Your task to perform on an android device: open device folders in google photos Image 0: 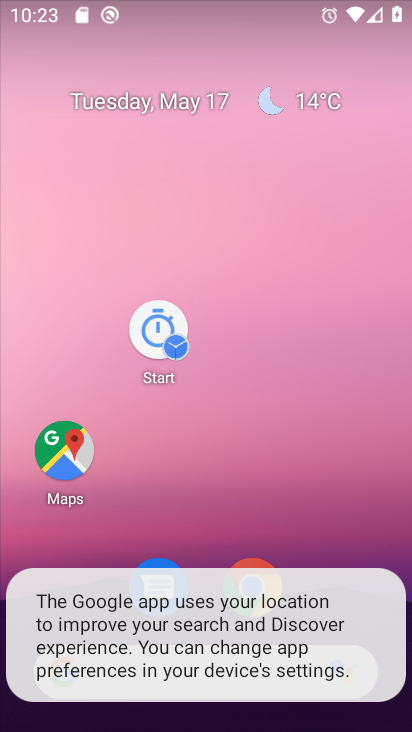
Step 0: drag from (318, 696) to (256, 249)
Your task to perform on an android device: open device folders in google photos Image 1: 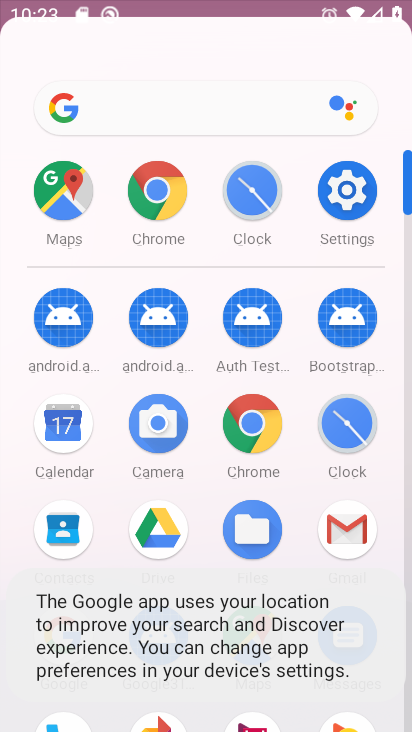
Step 1: drag from (191, 75) to (168, 3)
Your task to perform on an android device: open device folders in google photos Image 2: 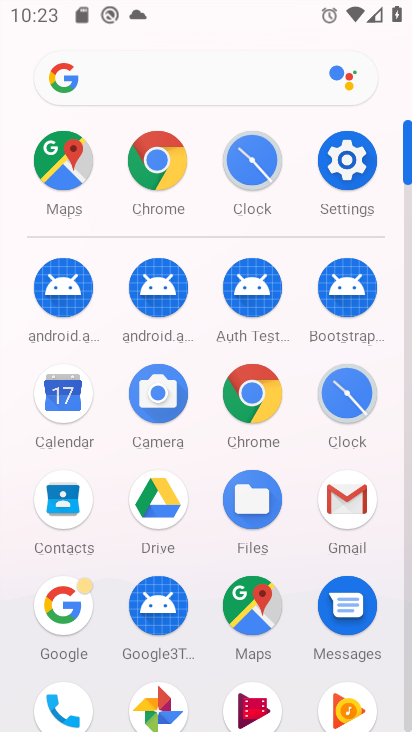
Step 2: drag from (316, 616) to (277, 40)
Your task to perform on an android device: open device folders in google photos Image 3: 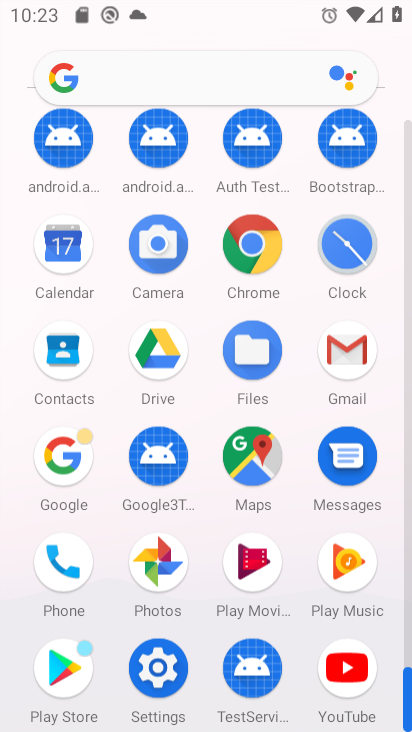
Step 3: drag from (301, 611) to (270, 209)
Your task to perform on an android device: open device folders in google photos Image 4: 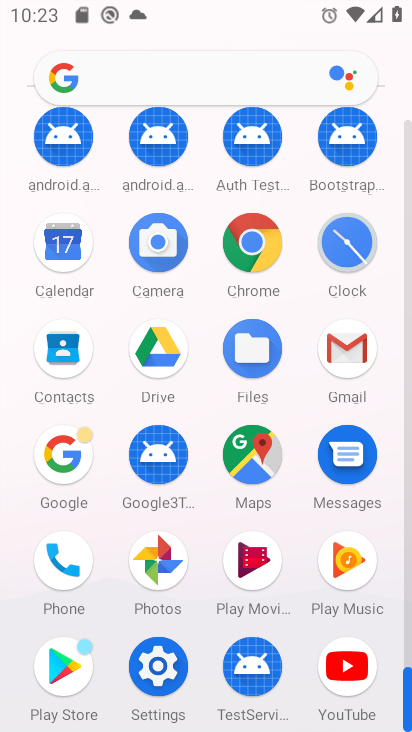
Step 4: click (347, 661)
Your task to perform on an android device: open device folders in google photos Image 5: 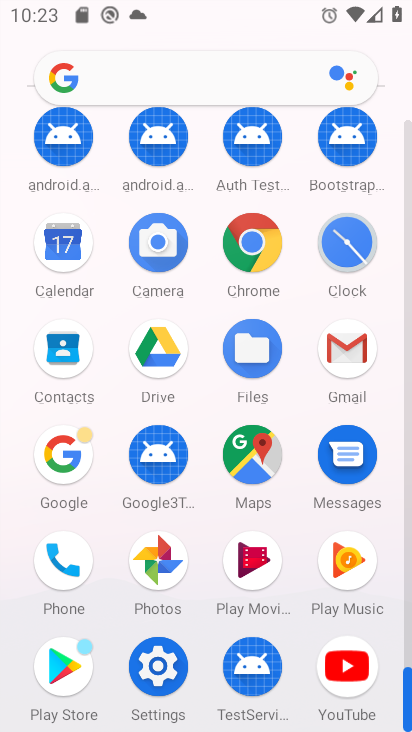
Step 5: click (347, 661)
Your task to perform on an android device: open device folders in google photos Image 6: 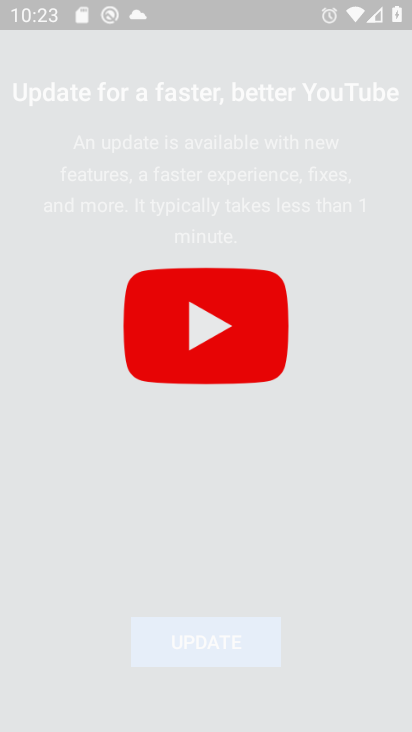
Step 6: click (347, 661)
Your task to perform on an android device: open device folders in google photos Image 7: 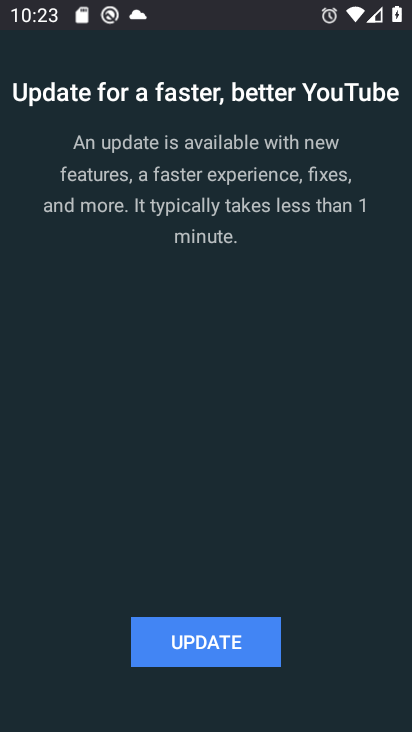
Step 7: click (221, 615)
Your task to perform on an android device: open device folders in google photos Image 8: 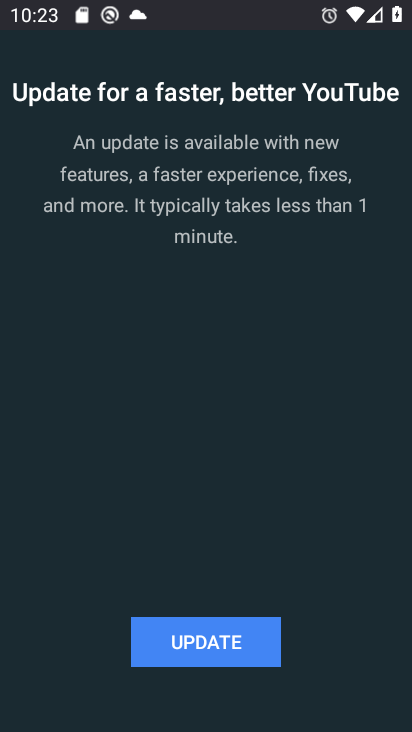
Step 8: press back button
Your task to perform on an android device: open device folders in google photos Image 9: 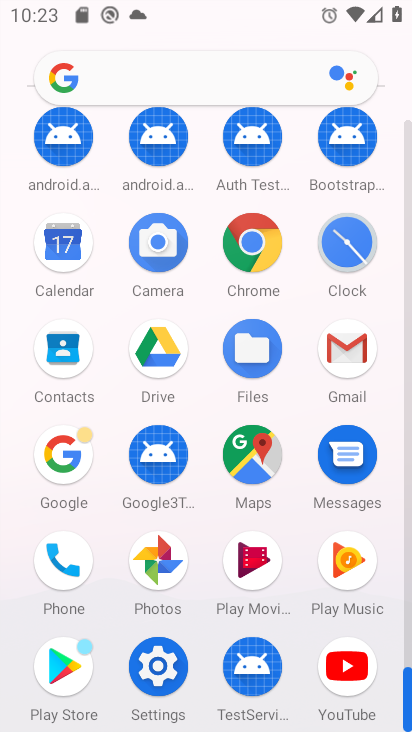
Step 9: click (173, 547)
Your task to perform on an android device: open device folders in google photos Image 10: 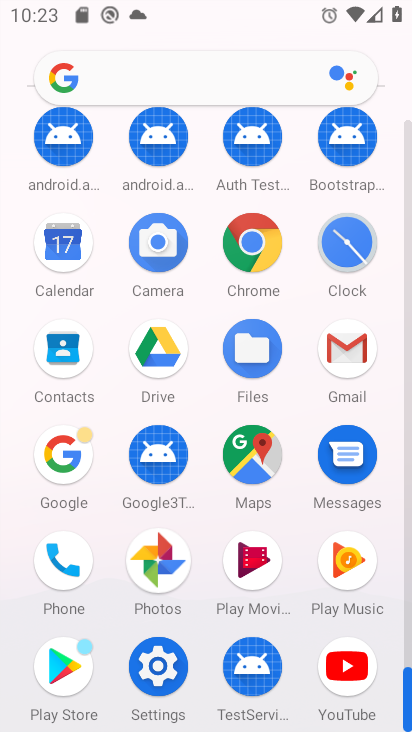
Step 10: click (173, 547)
Your task to perform on an android device: open device folders in google photos Image 11: 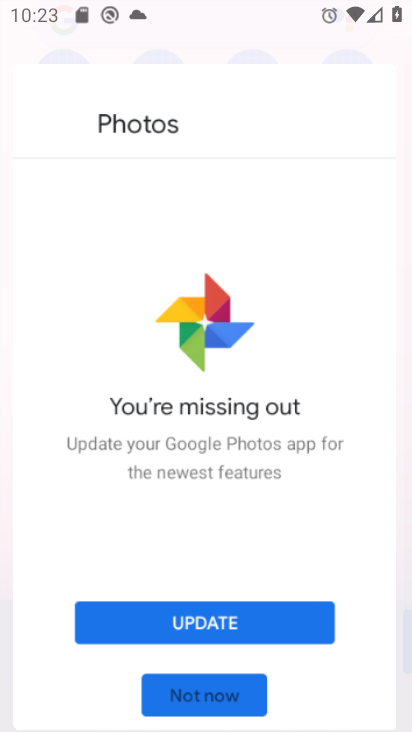
Step 11: click (173, 547)
Your task to perform on an android device: open device folders in google photos Image 12: 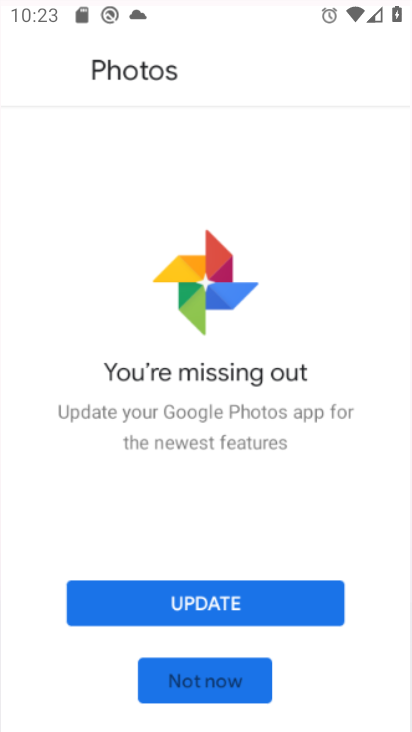
Step 12: click (175, 546)
Your task to perform on an android device: open device folders in google photos Image 13: 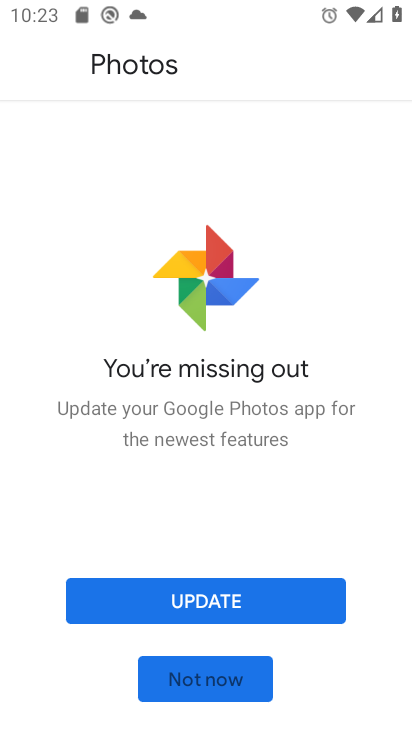
Step 13: click (175, 546)
Your task to perform on an android device: open device folders in google photos Image 14: 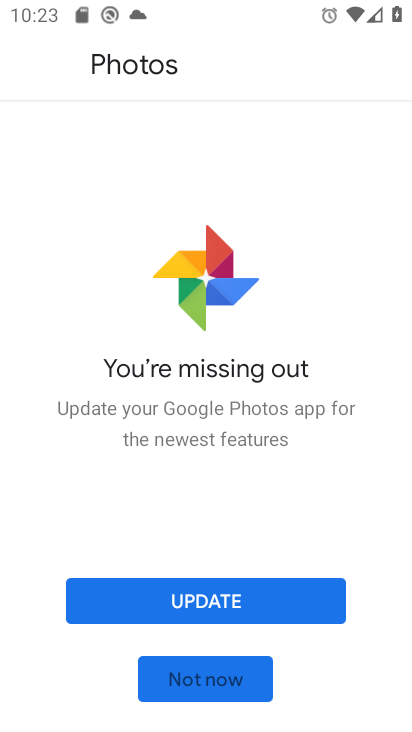
Step 14: click (202, 664)
Your task to perform on an android device: open device folders in google photos Image 15: 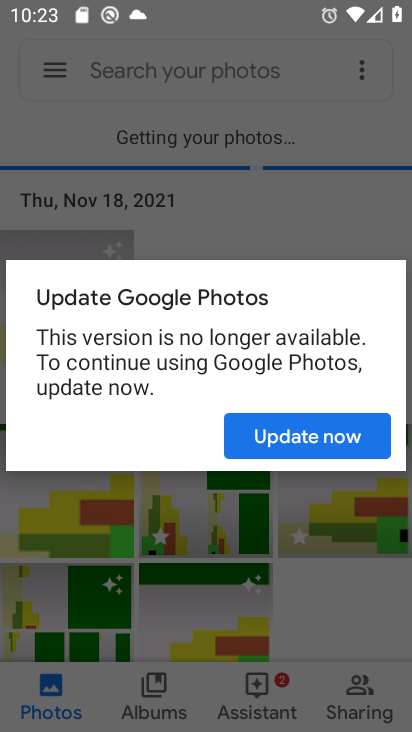
Step 15: click (317, 440)
Your task to perform on an android device: open device folders in google photos Image 16: 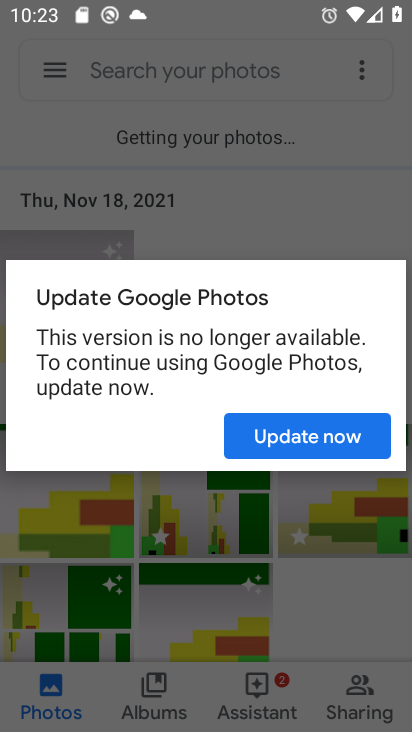
Step 16: click (317, 440)
Your task to perform on an android device: open device folders in google photos Image 17: 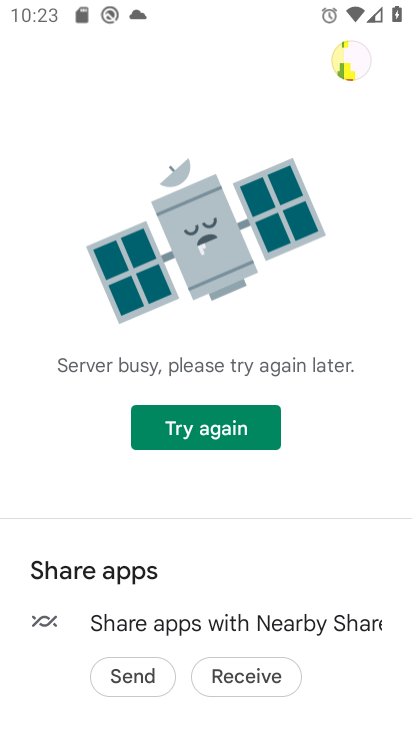
Step 17: task complete